Your task to perform on an android device: Open accessibility settings Image 0: 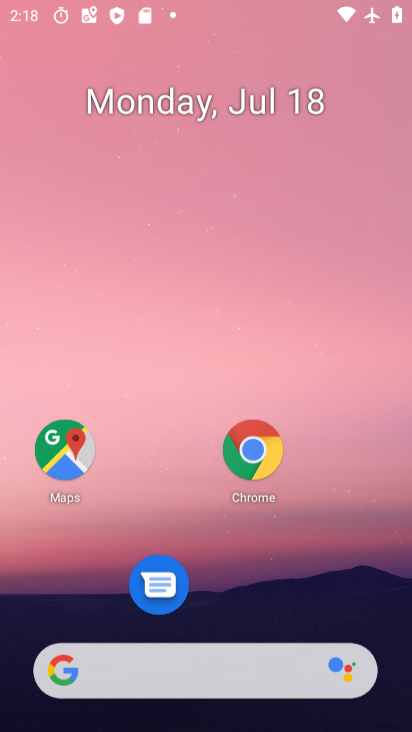
Step 0: press home button
Your task to perform on an android device: Open accessibility settings Image 1: 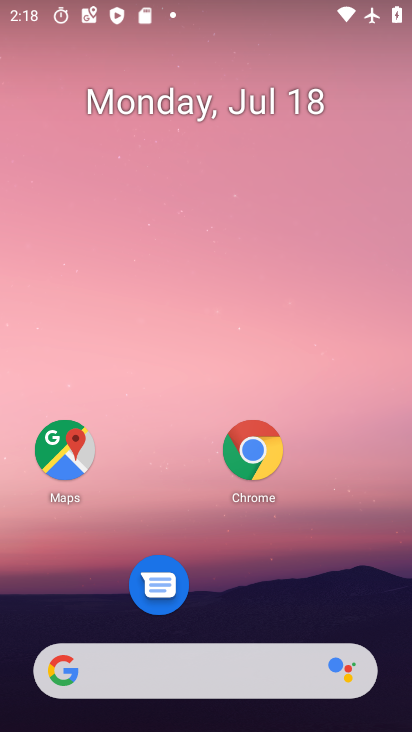
Step 1: drag from (170, 678) to (292, 65)
Your task to perform on an android device: Open accessibility settings Image 2: 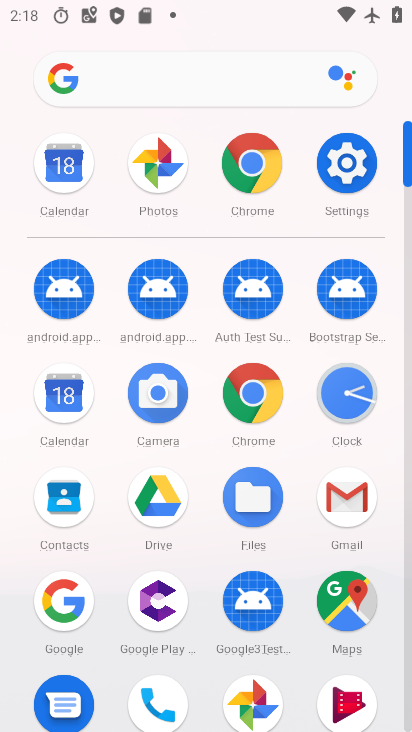
Step 2: click (336, 176)
Your task to perform on an android device: Open accessibility settings Image 3: 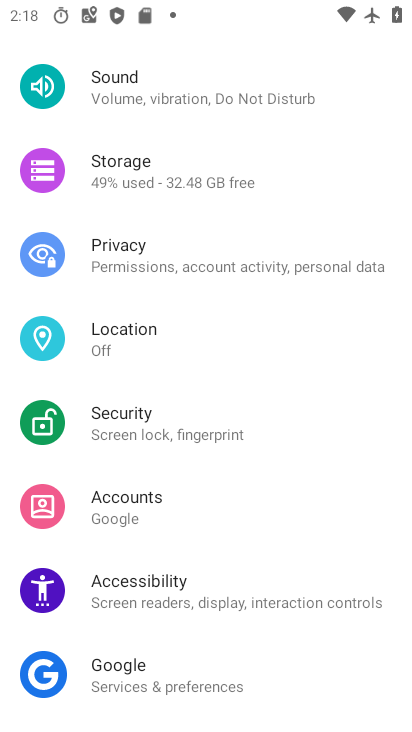
Step 3: click (163, 588)
Your task to perform on an android device: Open accessibility settings Image 4: 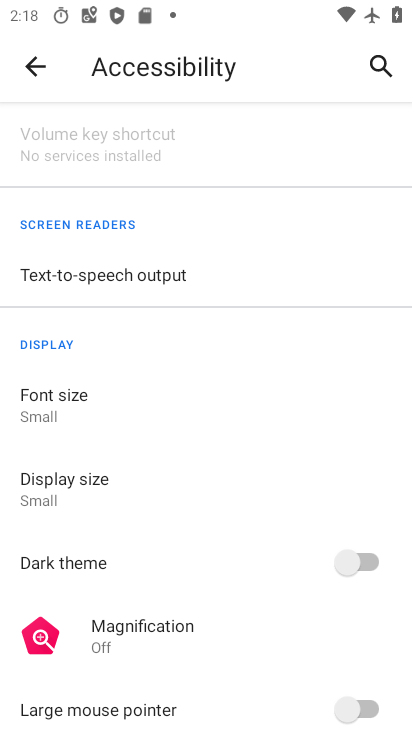
Step 4: task complete